Your task to perform on an android device: delete browsing data in the chrome app Image 0: 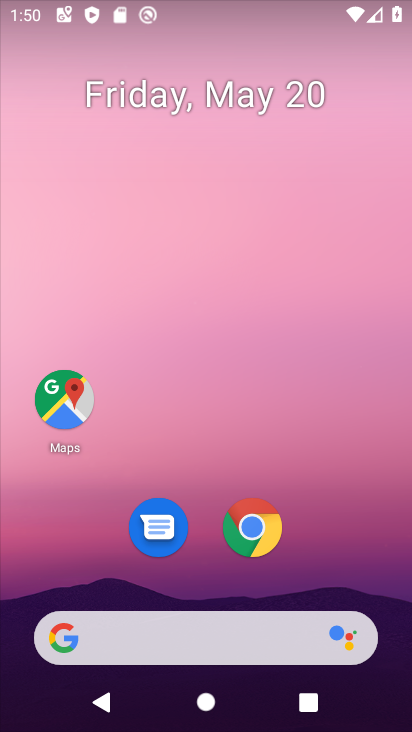
Step 0: click (259, 526)
Your task to perform on an android device: delete browsing data in the chrome app Image 1: 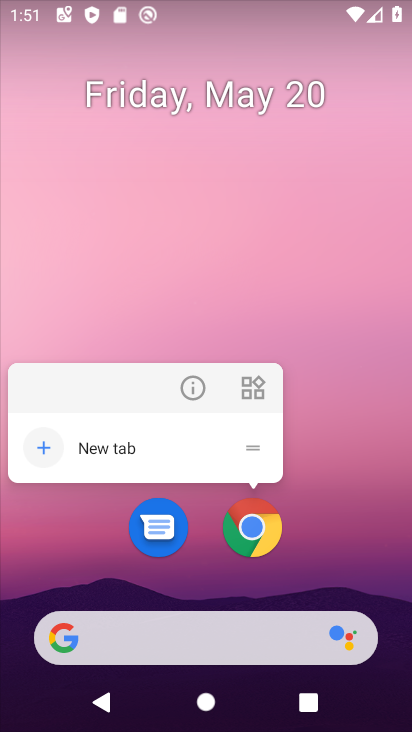
Step 1: click (245, 538)
Your task to perform on an android device: delete browsing data in the chrome app Image 2: 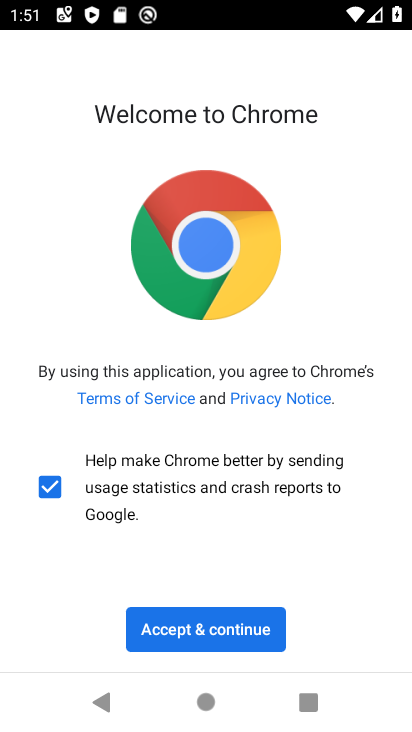
Step 2: click (234, 634)
Your task to perform on an android device: delete browsing data in the chrome app Image 3: 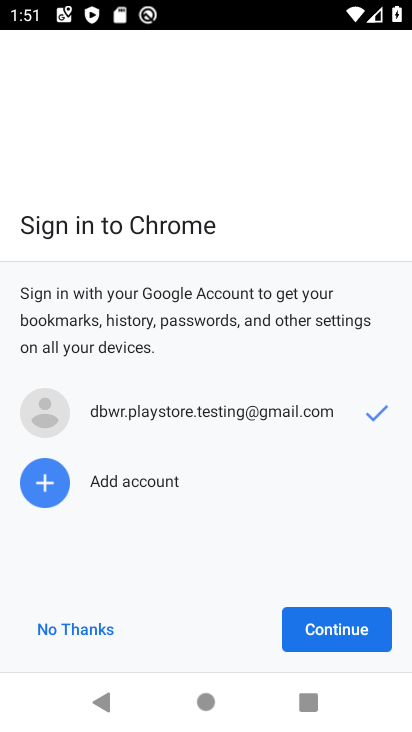
Step 3: click (319, 627)
Your task to perform on an android device: delete browsing data in the chrome app Image 4: 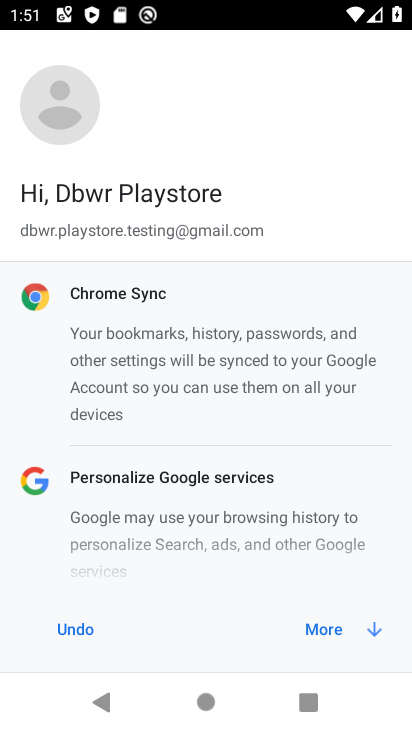
Step 4: click (343, 629)
Your task to perform on an android device: delete browsing data in the chrome app Image 5: 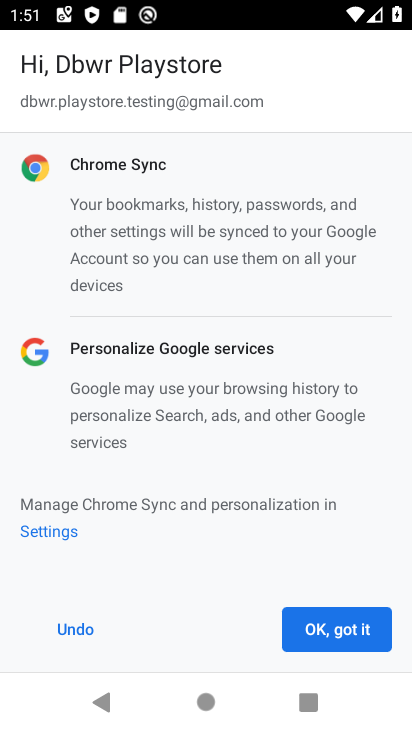
Step 5: click (343, 629)
Your task to perform on an android device: delete browsing data in the chrome app Image 6: 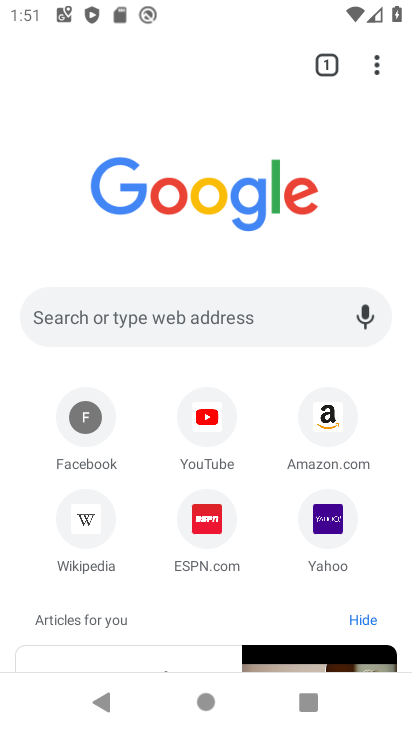
Step 6: click (370, 64)
Your task to perform on an android device: delete browsing data in the chrome app Image 7: 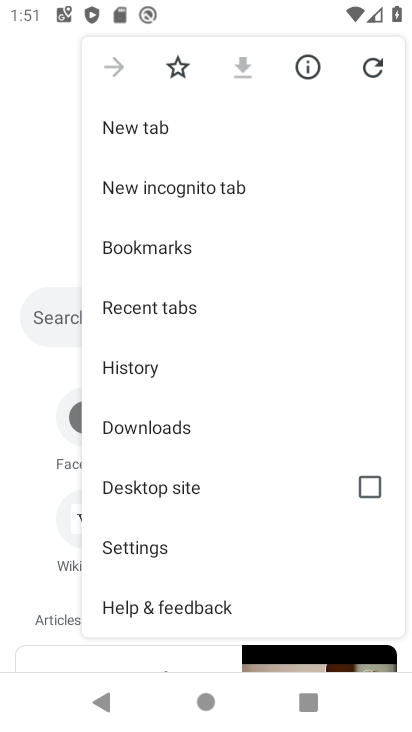
Step 7: click (145, 372)
Your task to perform on an android device: delete browsing data in the chrome app Image 8: 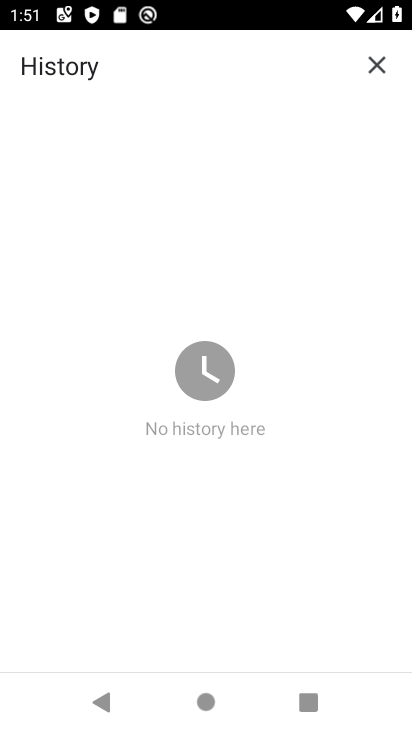
Step 8: task complete